Your task to perform on an android device: Do I have any events tomorrow? Image 0: 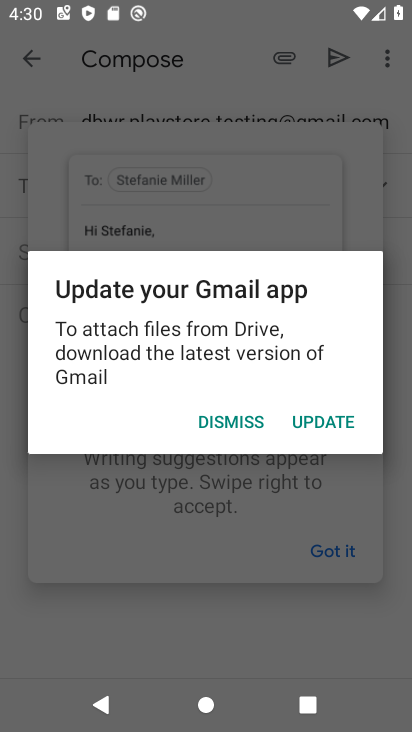
Step 0: press home button
Your task to perform on an android device: Do I have any events tomorrow? Image 1: 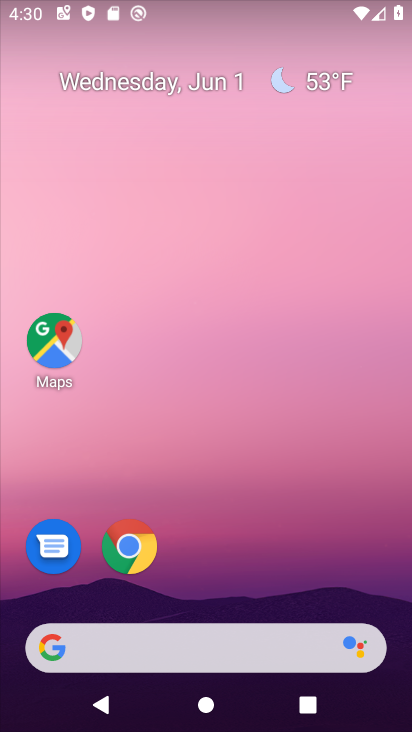
Step 1: click (245, 641)
Your task to perform on an android device: Do I have any events tomorrow? Image 2: 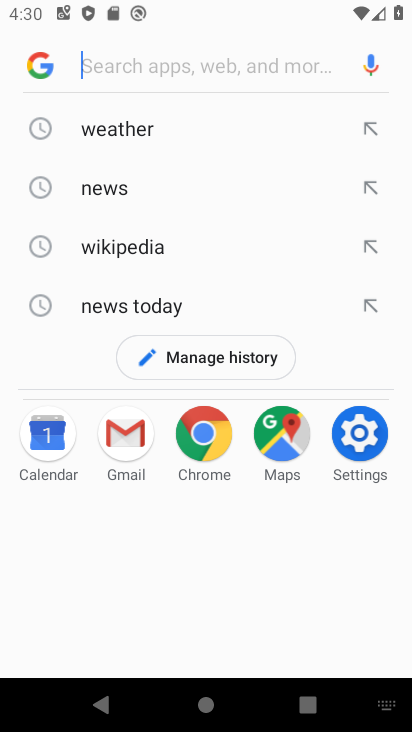
Step 2: click (130, 123)
Your task to perform on an android device: Do I have any events tomorrow? Image 3: 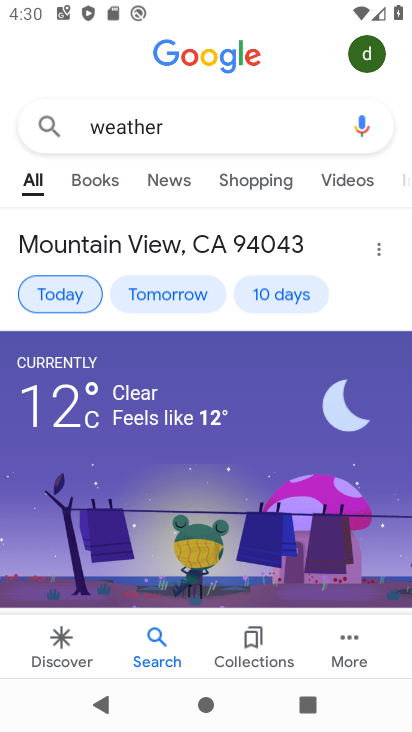
Step 3: click (159, 289)
Your task to perform on an android device: Do I have any events tomorrow? Image 4: 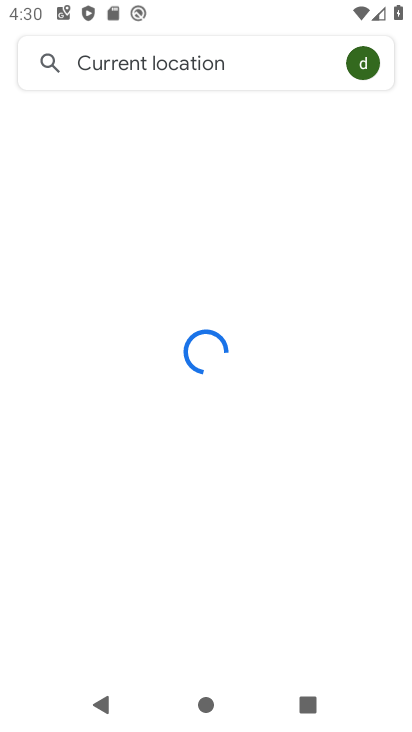
Step 4: click (159, 289)
Your task to perform on an android device: Do I have any events tomorrow? Image 5: 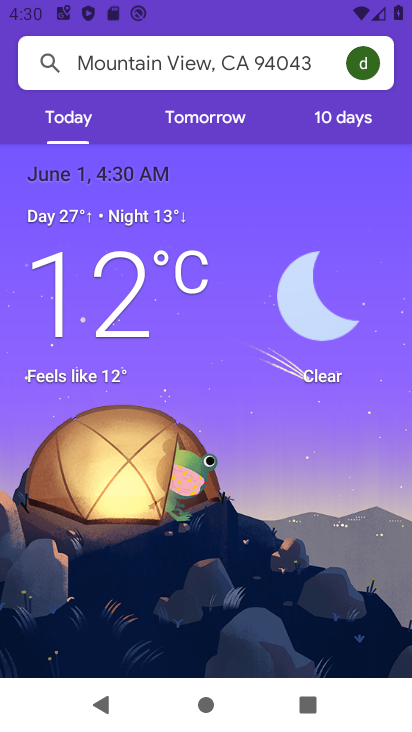
Step 5: click (198, 121)
Your task to perform on an android device: Do I have any events tomorrow? Image 6: 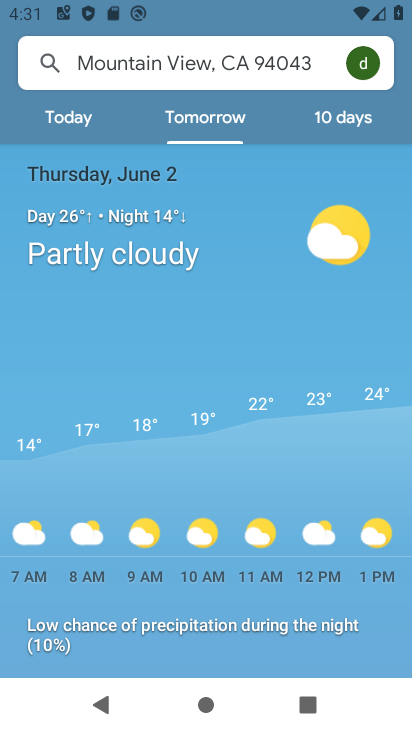
Step 6: task complete